Your task to perform on an android device: snooze an email in the gmail app Image 0: 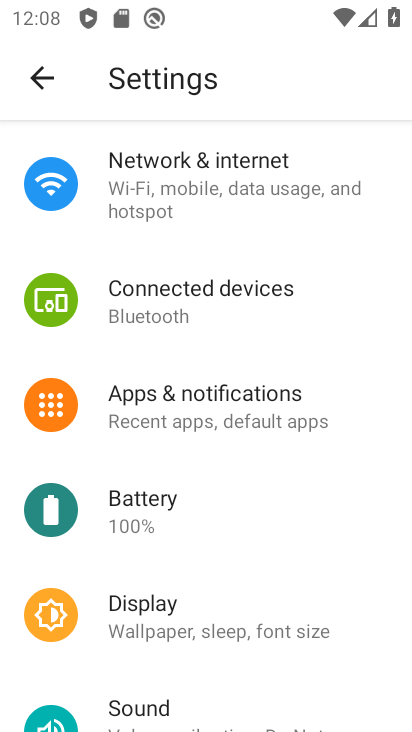
Step 0: press home button
Your task to perform on an android device: snooze an email in the gmail app Image 1: 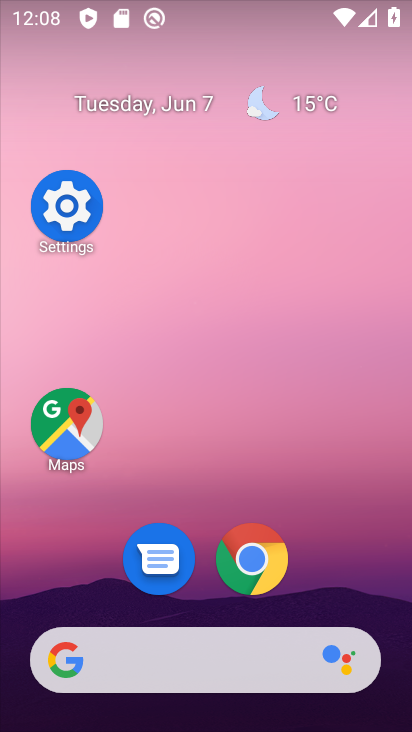
Step 1: drag from (316, 573) to (410, 2)
Your task to perform on an android device: snooze an email in the gmail app Image 2: 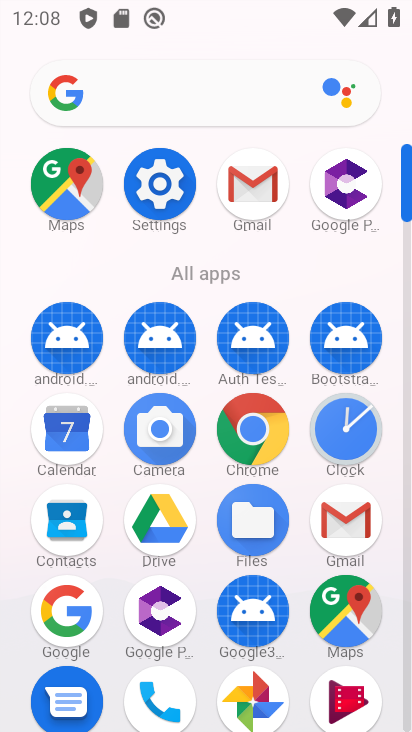
Step 2: click (256, 180)
Your task to perform on an android device: snooze an email in the gmail app Image 3: 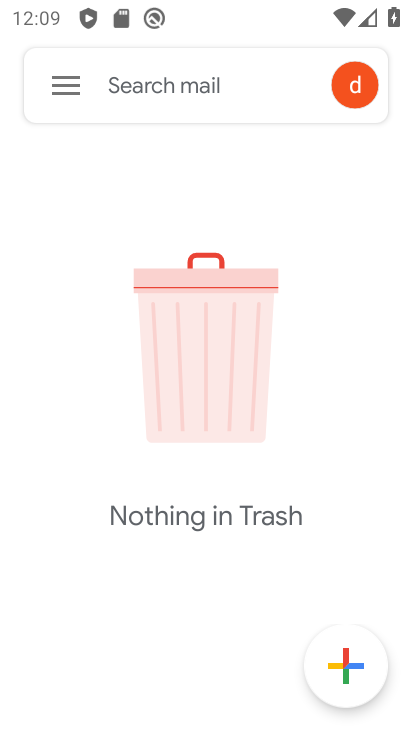
Step 3: click (69, 96)
Your task to perform on an android device: snooze an email in the gmail app Image 4: 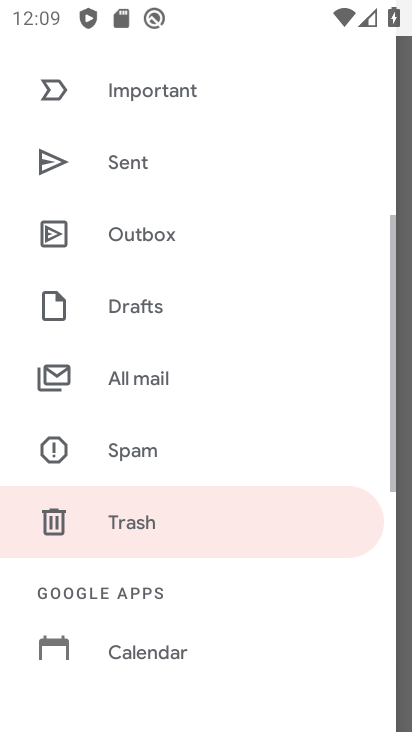
Step 4: click (255, 380)
Your task to perform on an android device: snooze an email in the gmail app Image 5: 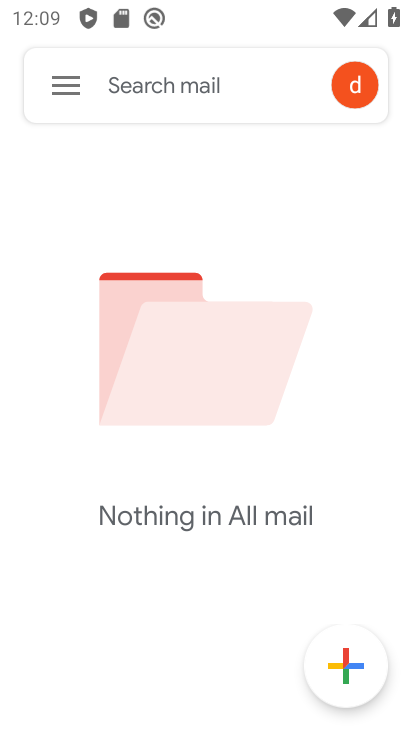
Step 5: task complete